Your task to perform on an android device: open app "Microsoft Authenticator" (install if not already installed) Image 0: 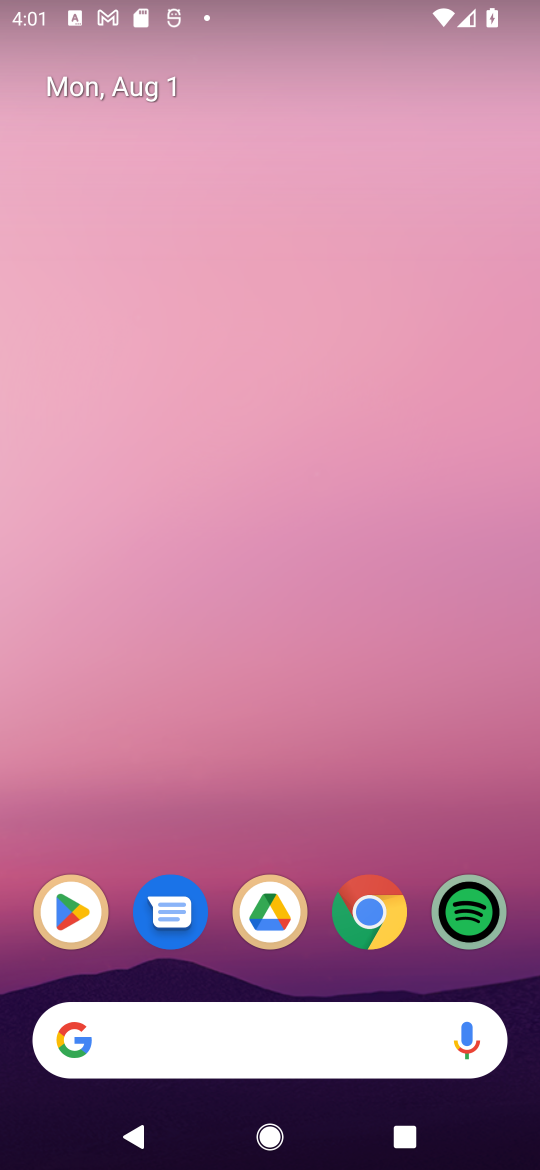
Step 0: click (74, 906)
Your task to perform on an android device: open app "Microsoft Authenticator" (install if not already installed) Image 1: 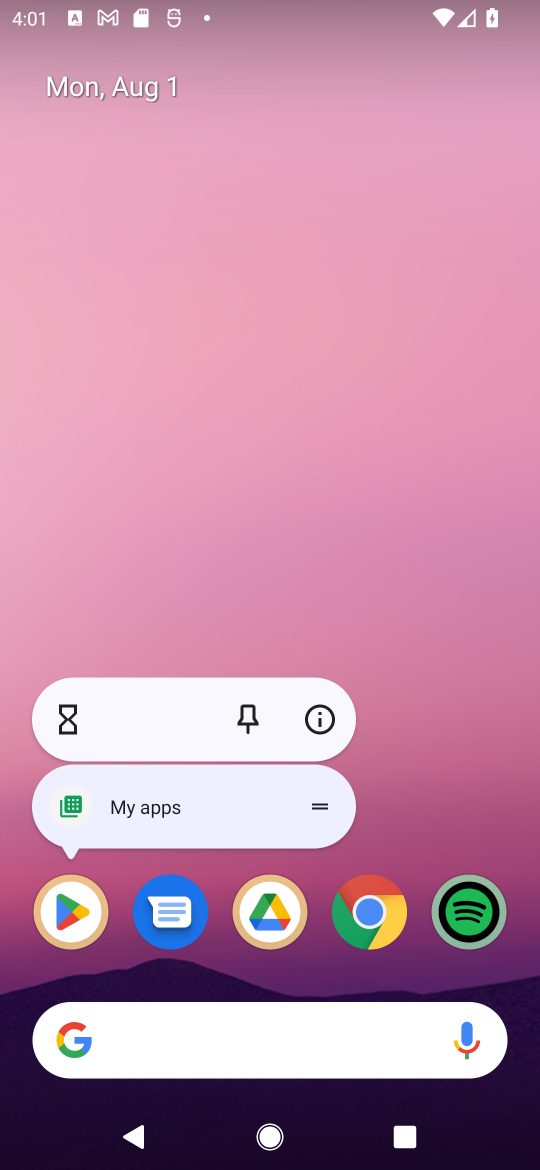
Step 1: click (64, 930)
Your task to perform on an android device: open app "Microsoft Authenticator" (install if not already installed) Image 2: 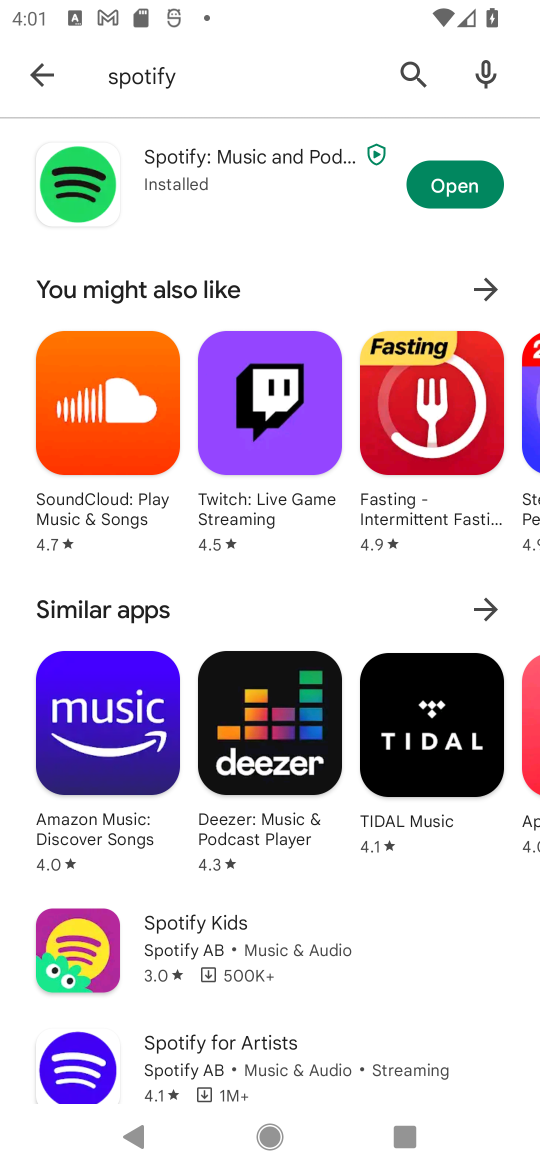
Step 2: click (403, 63)
Your task to perform on an android device: open app "Microsoft Authenticator" (install if not already installed) Image 3: 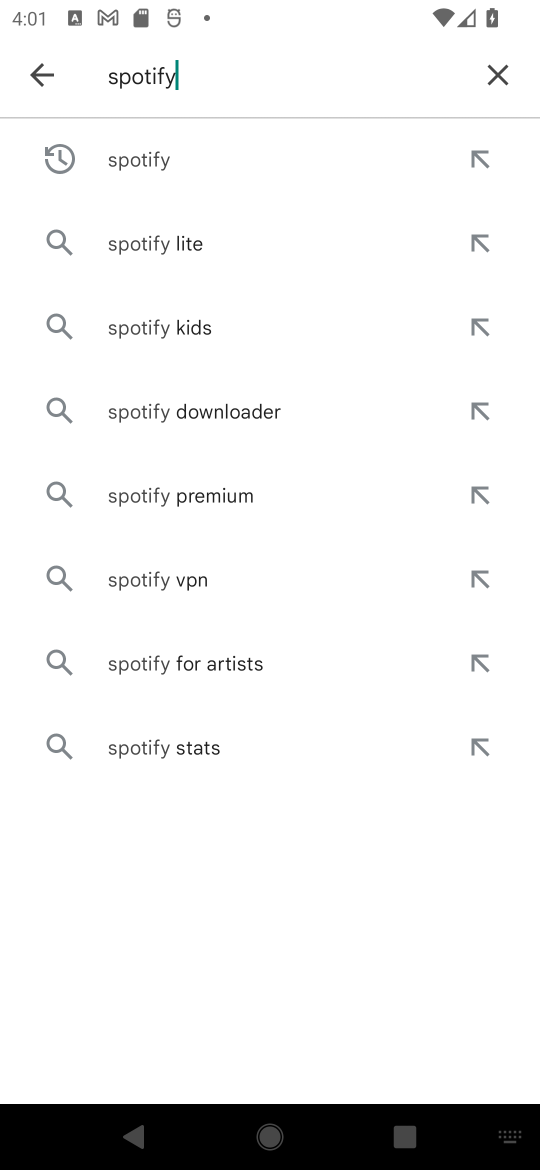
Step 3: click (505, 83)
Your task to perform on an android device: open app "Microsoft Authenticator" (install if not already installed) Image 4: 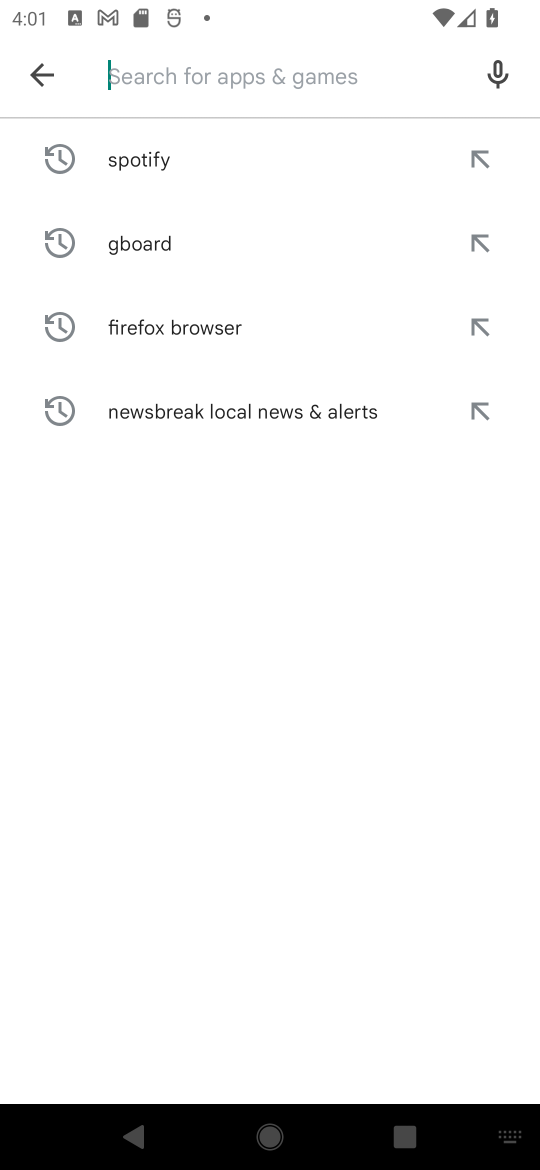
Step 4: type "Microsoft Authenticator"
Your task to perform on an android device: open app "Microsoft Authenticator" (install if not already installed) Image 5: 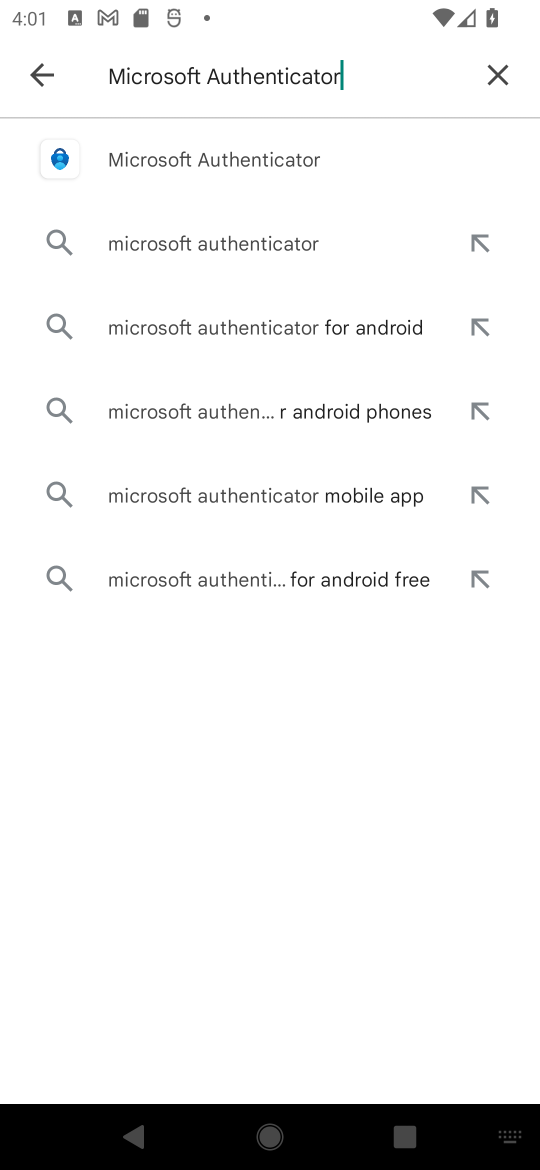
Step 5: click (214, 155)
Your task to perform on an android device: open app "Microsoft Authenticator" (install if not already installed) Image 6: 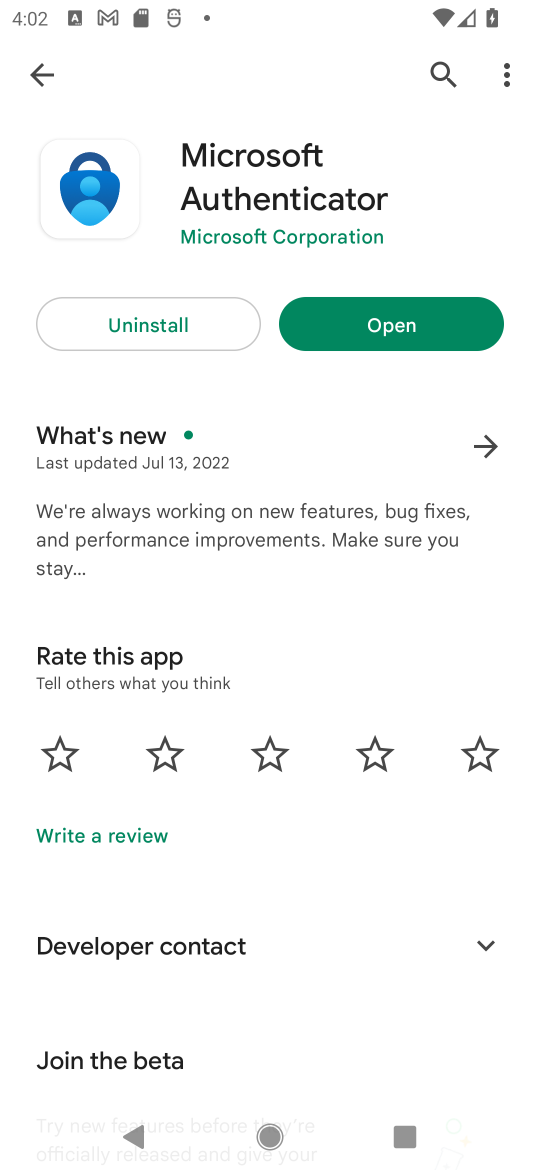
Step 6: click (362, 334)
Your task to perform on an android device: open app "Microsoft Authenticator" (install if not already installed) Image 7: 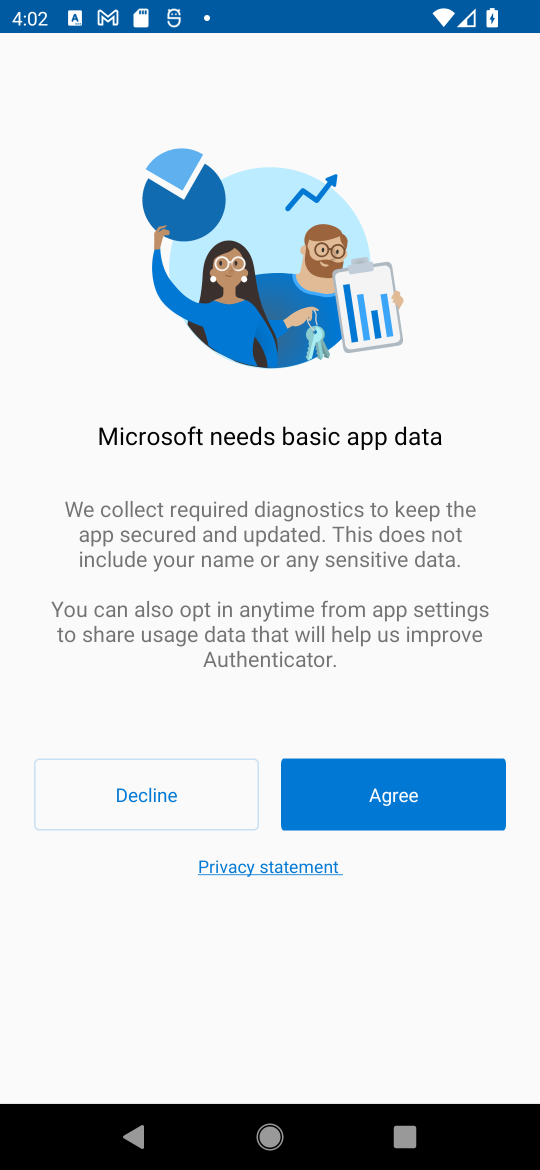
Step 7: task complete